Your task to perform on an android device: Search for a new lipstick on Sephora Image 0: 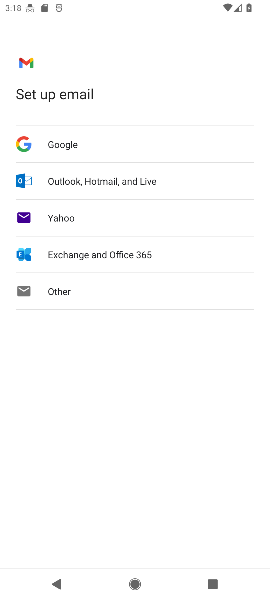
Step 0: press home button
Your task to perform on an android device: Search for a new lipstick on Sephora Image 1: 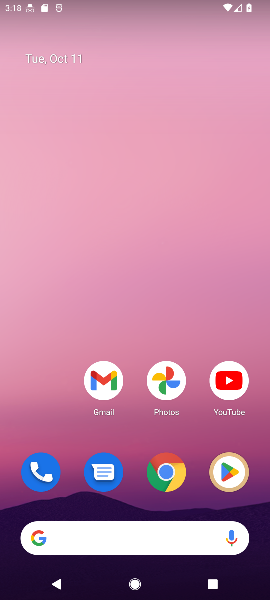
Step 1: click (155, 474)
Your task to perform on an android device: Search for a new lipstick on Sephora Image 2: 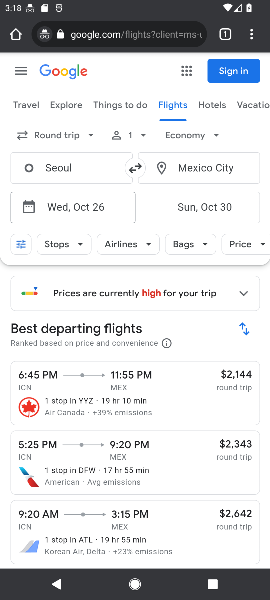
Step 2: click (108, 28)
Your task to perform on an android device: Search for a new lipstick on Sephora Image 3: 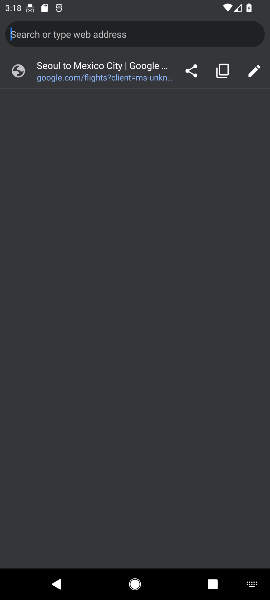
Step 3: type "new lipstick on Sephora"
Your task to perform on an android device: Search for a new lipstick on Sephora Image 4: 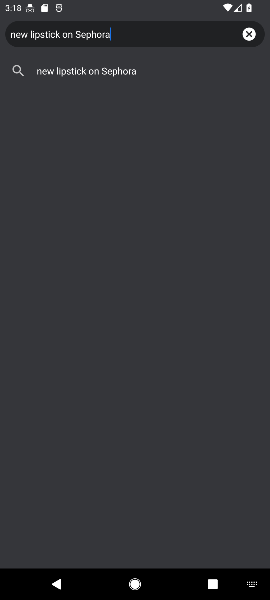
Step 4: click (108, 70)
Your task to perform on an android device: Search for a new lipstick on Sephora Image 5: 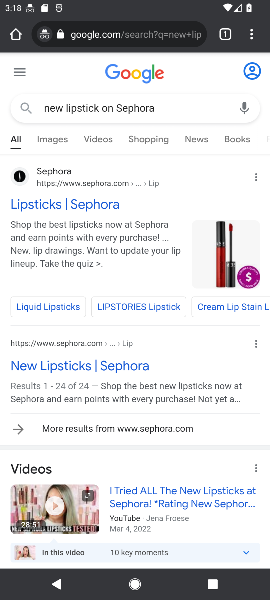
Step 5: click (131, 139)
Your task to perform on an android device: Search for a new lipstick on Sephora Image 6: 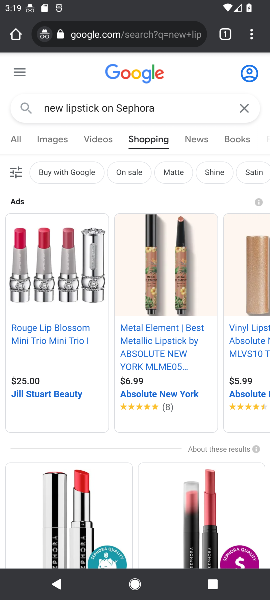
Step 6: click (141, 339)
Your task to perform on an android device: Search for a new lipstick on Sephora Image 7: 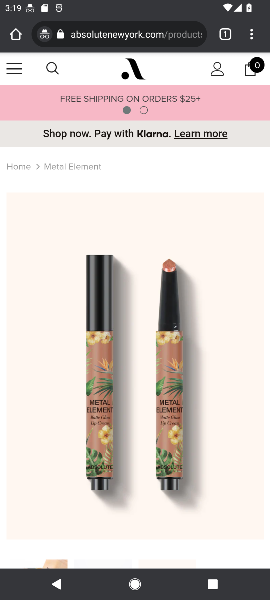
Step 7: task complete